Your task to perform on an android device: make emails show in primary in the gmail app Image 0: 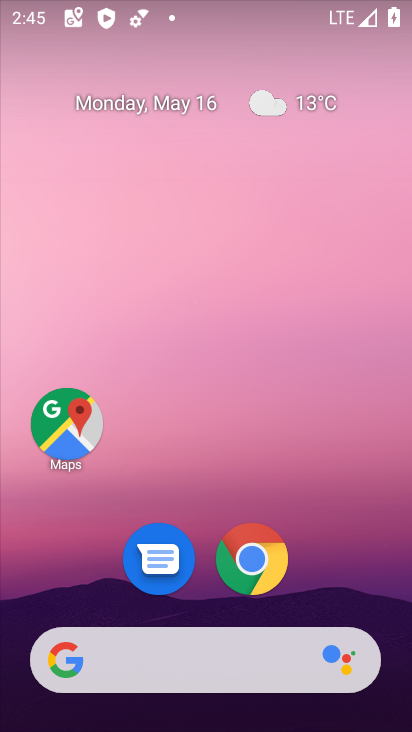
Step 0: drag from (180, 651) to (301, 148)
Your task to perform on an android device: make emails show in primary in the gmail app Image 1: 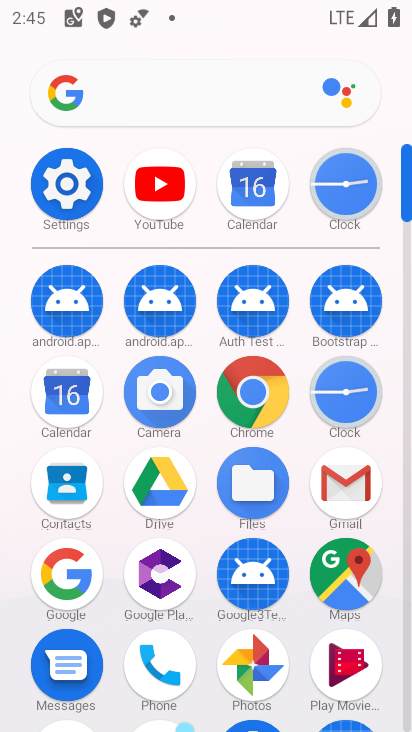
Step 1: click (348, 497)
Your task to perform on an android device: make emails show in primary in the gmail app Image 2: 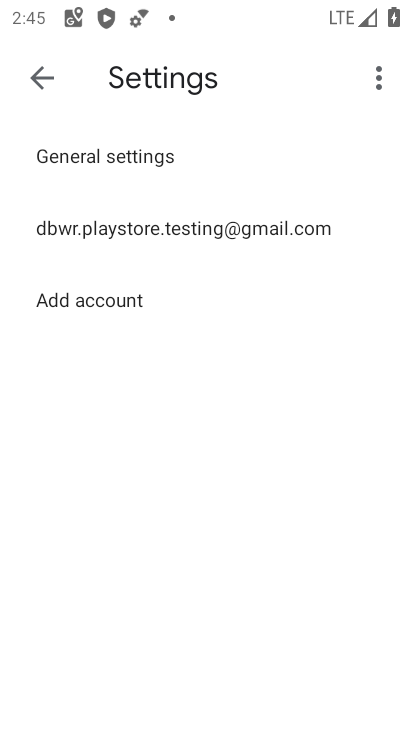
Step 2: click (209, 228)
Your task to perform on an android device: make emails show in primary in the gmail app Image 3: 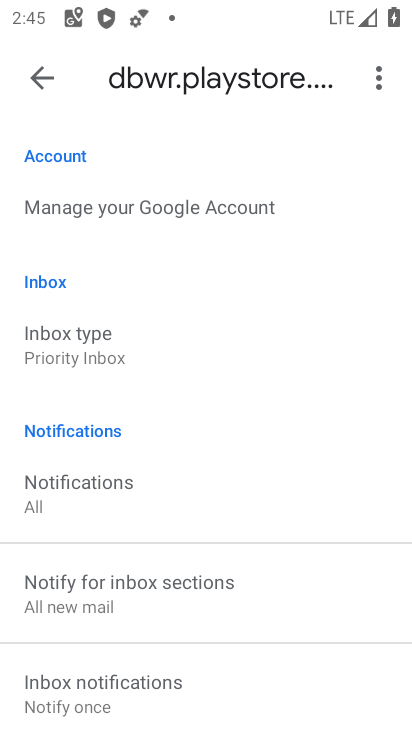
Step 3: task complete